Your task to perform on an android device: find snoozed emails in the gmail app Image 0: 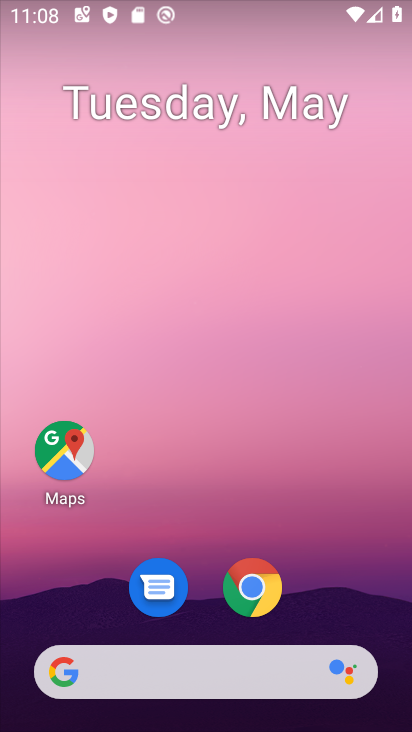
Step 0: drag from (316, 588) to (249, 53)
Your task to perform on an android device: find snoozed emails in the gmail app Image 1: 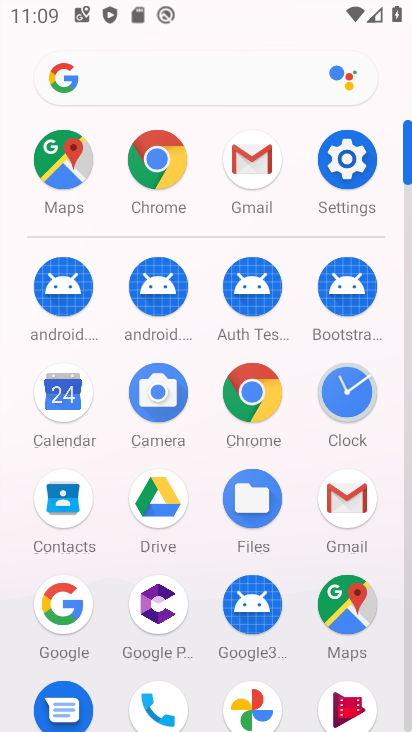
Step 1: drag from (13, 623) to (30, 287)
Your task to perform on an android device: find snoozed emails in the gmail app Image 2: 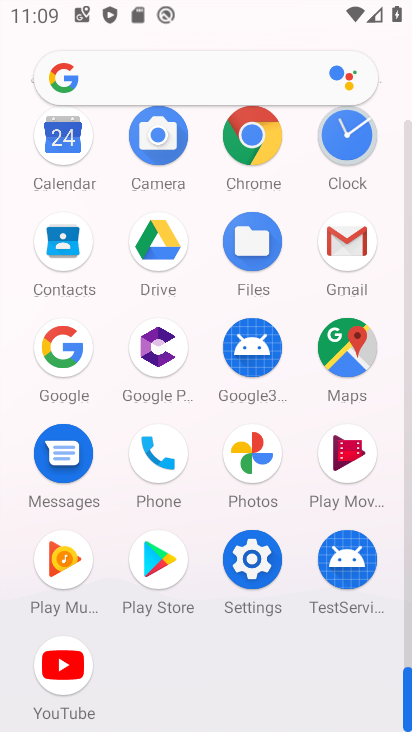
Step 2: click (348, 233)
Your task to perform on an android device: find snoozed emails in the gmail app Image 3: 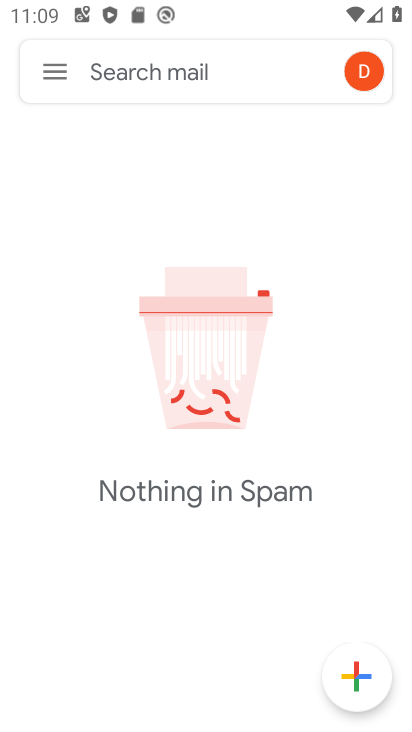
Step 3: click (62, 71)
Your task to perform on an android device: find snoozed emails in the gmail app Image 4: 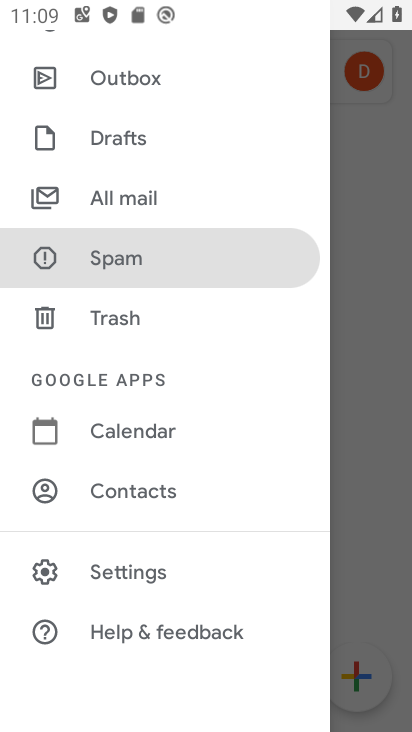
Step 4: drag from (175, 149) to (229, 616)
Your task to perform on an android device: find snoozed emails in the gmail app Image 5: 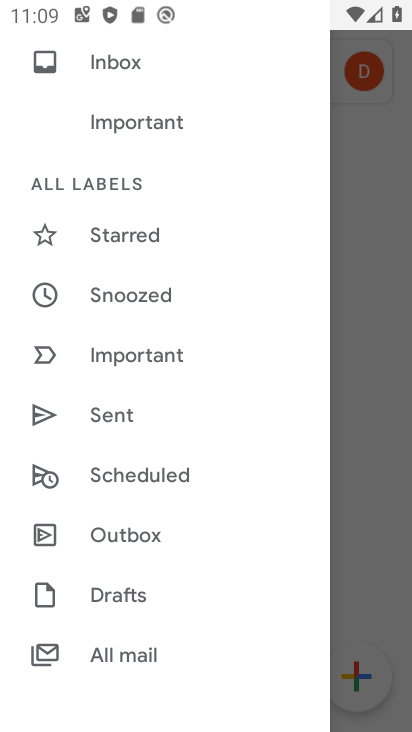
Step 5: click (169, 296)
Your task to perform on an android device: find snoozed emails in the gmail app Image 6: 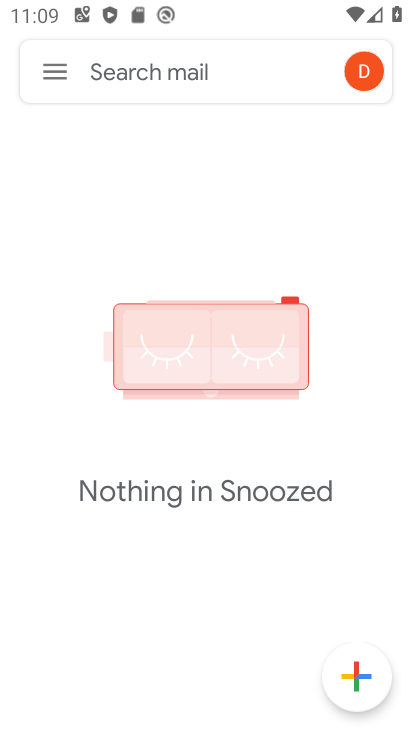
Step 6: task complete